Your task to perform on an android device: open a new tab in the chrome app Image 0: 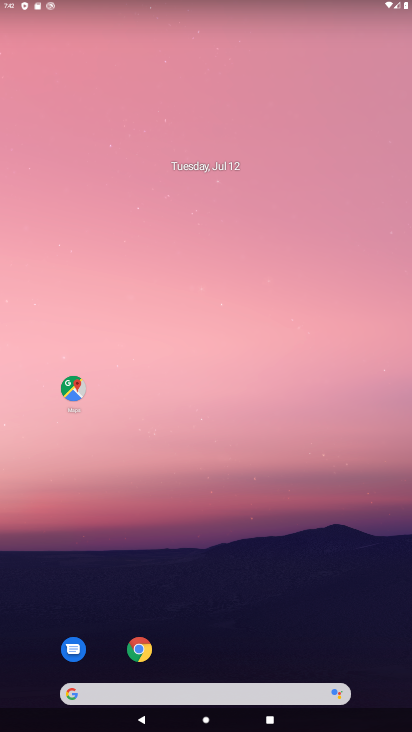
Step 0: drag from (320, 628) to (252, 134)
Your task to perform on an android device: open a new tab in the chrome app Image 1: 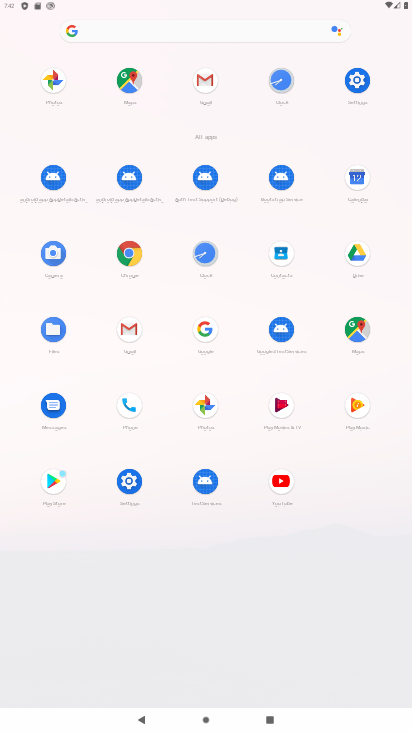
Step 1: click (132, 253)
Your task to perform on an android device: open a new tab in the chrome app Image 2: 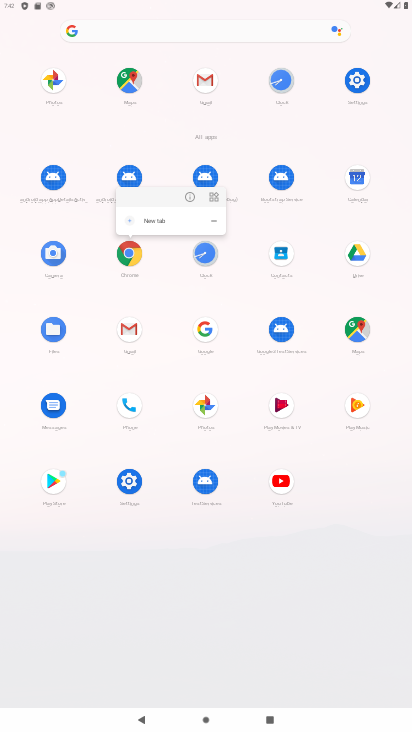
Step 2: click (124, 255)
Your task to perform on an android device: open a new tab in the chrome app Image 3: 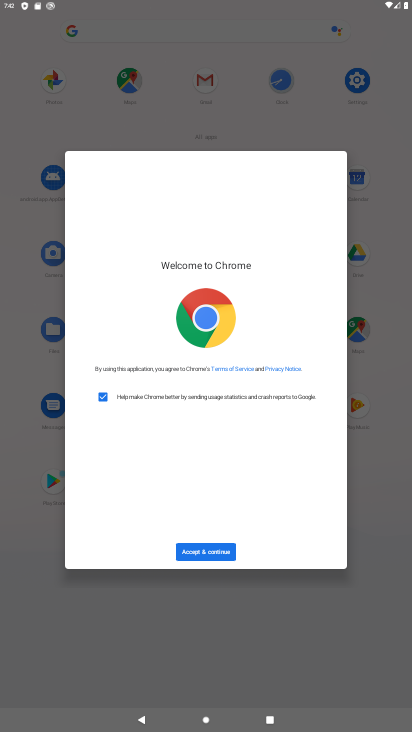
Step 3: click (230, 559)
Your task to perform on an android device: open a new tab in the chrome app Image 4: 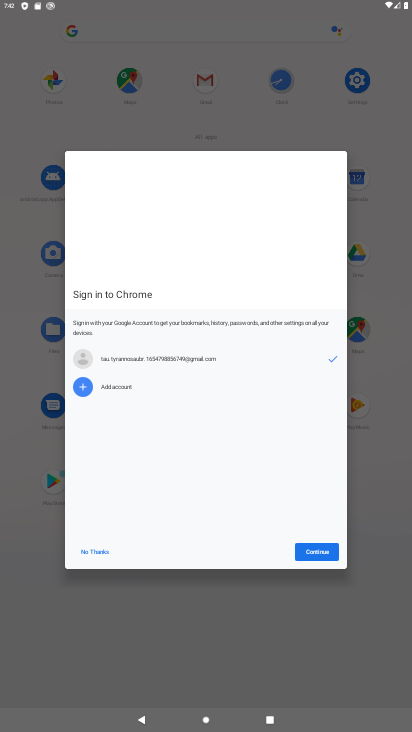
Step 4: click (324, 551)
Your task to perform on an android device: open a new tab in the chrome app Image 5: 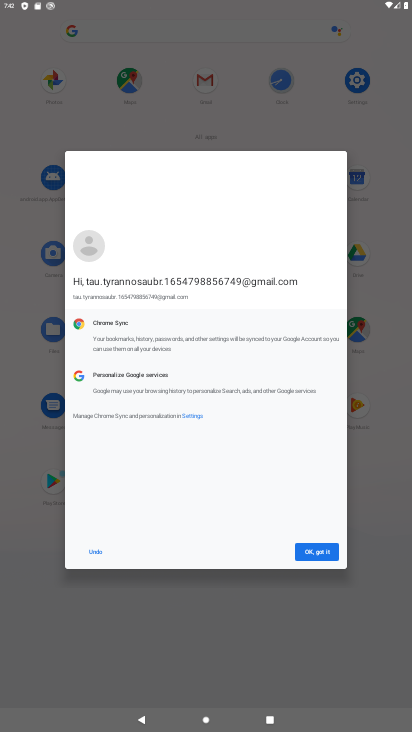
Step 5: click (324, 551)
Your task to perform on an android device: open a new tab in the chrome app Image 6: 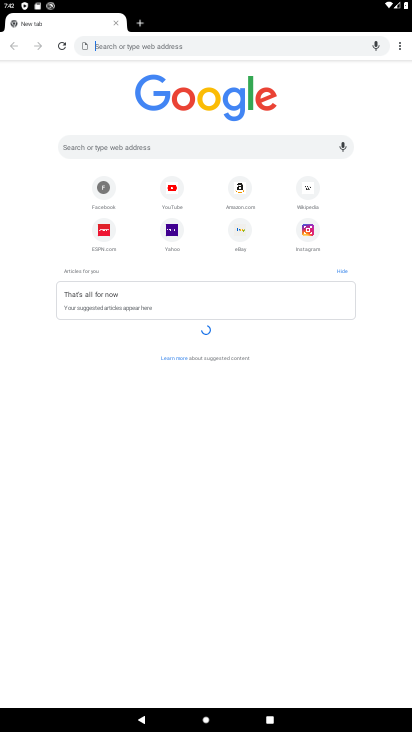
Step 6: click (138, 24)
Your task to perform on an android device: open a new tab in the chrome app Image 7: 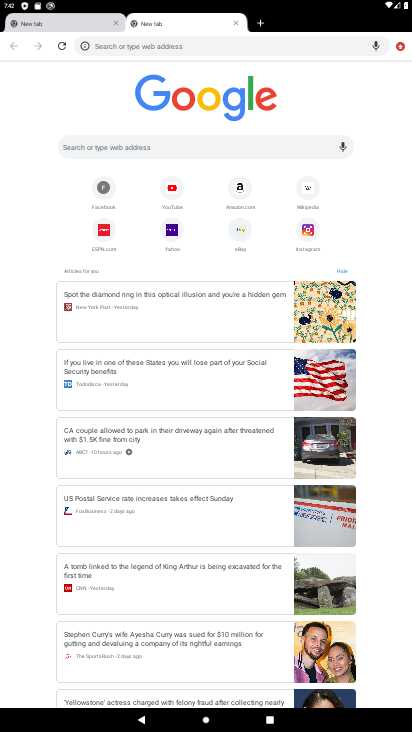
Step 7: task complete